Your task to perform on an android device: add a contact in the contacts app Image 0: 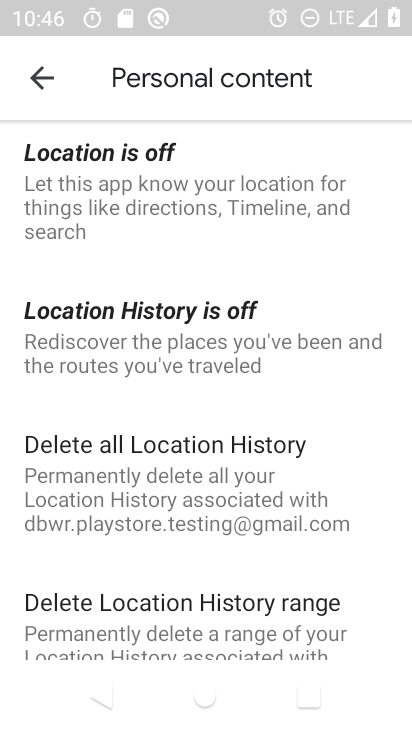
Step 0: press home button
Your task to perform on an android device: add a contact in the contacts app Image 1: 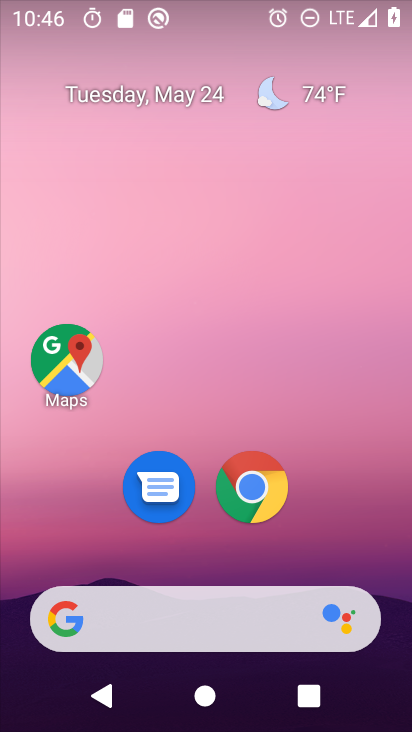
Step 1: drag from (366, 582) to (401, 17)
Your task to perform on an android device: add a contact in the contacts app Image 2: 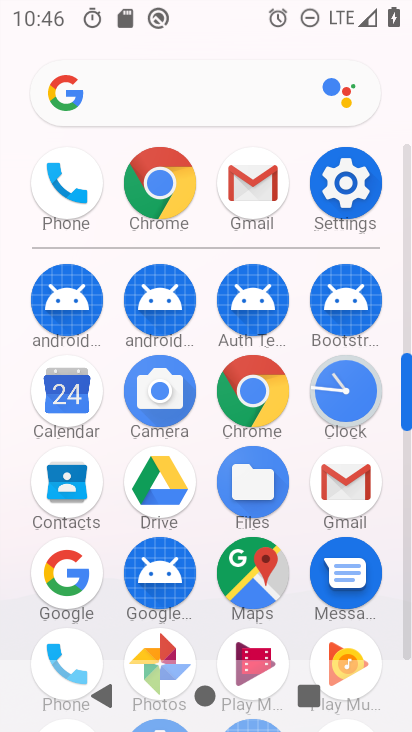
Step 2: click (70, 496)
Your task to perform on an android device: add a contact in the contacts app Image 3: 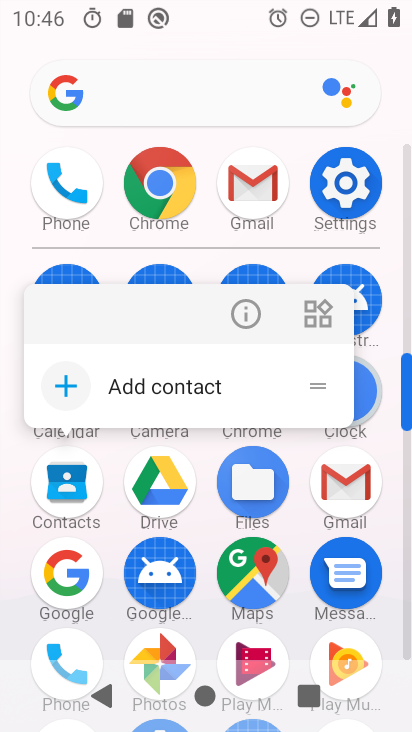
Step 3: click (71, 496)
Your task to perform on an android device: add a contact in the contacts app Image 4: 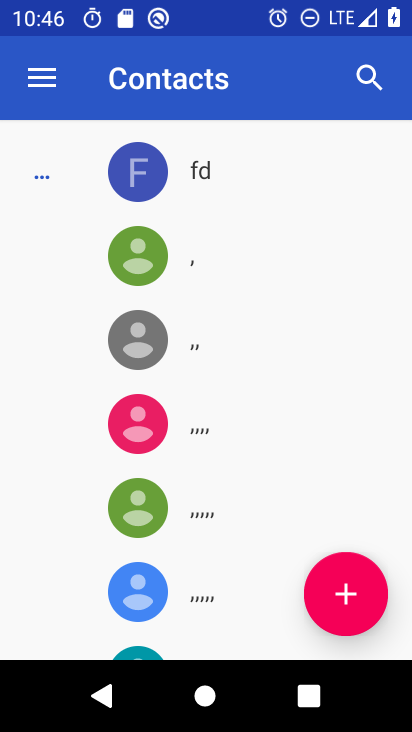
Step 4: click (344, 601)
Your task to perform on an android device: add a contact in the contacts app Image 5: 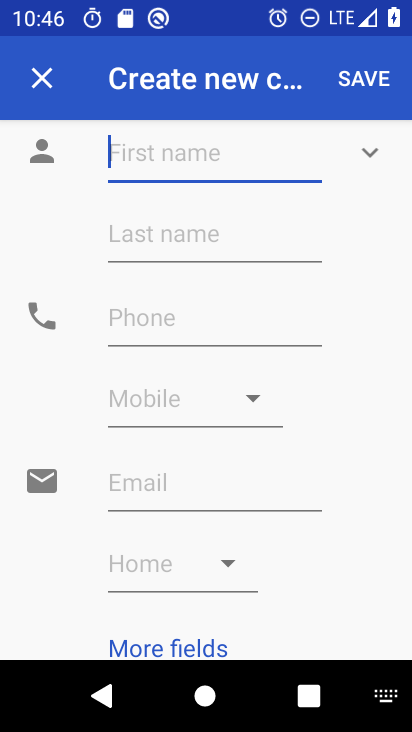
Step 5: type "maali"
Your task to perform on an android device: add a contact in the contacts app Image 6: 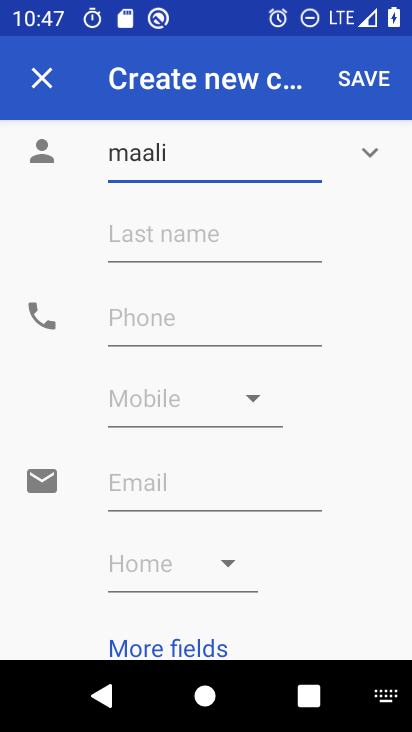
Step 6: click (163, 331)
Your task to perform on an android device: add a contact in the contacts app Image 7: 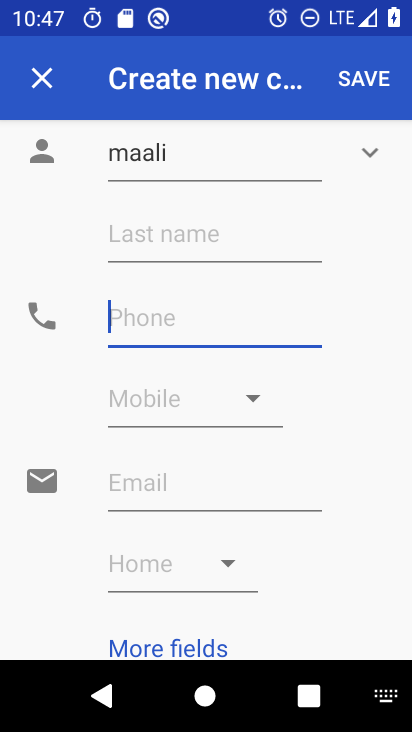
Step 7: type "988766554"
Your task to perform on an android device: add a contact in the contacts app Image 8: 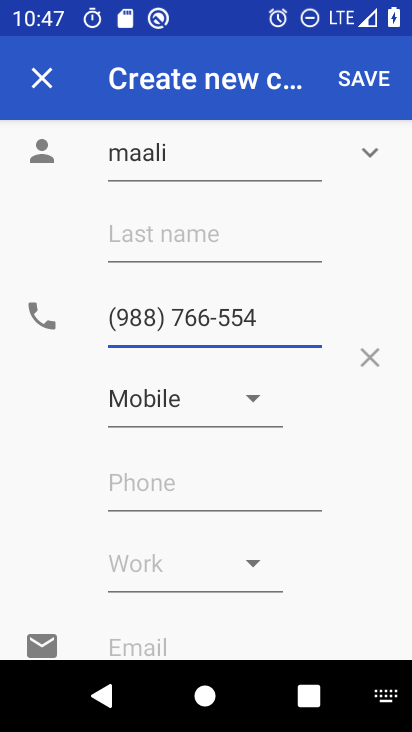
Step 8: click (363, 81)
Your task to perform on an android device: add a contact in the contacts app Image 9: 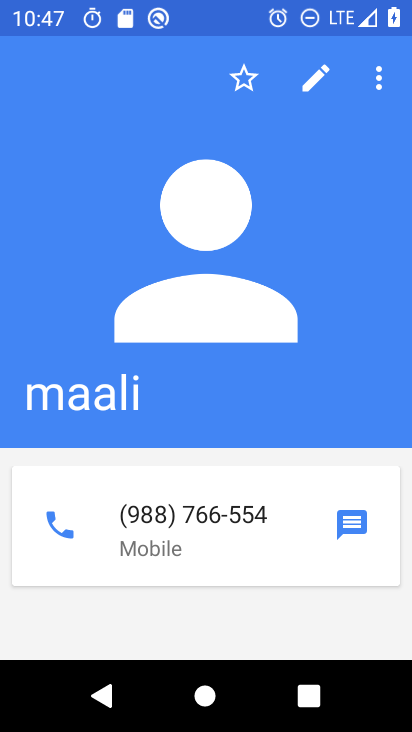
Step 9: task complete